Your task to perform on an android device: Search for Mexican restaurants on Maps Image 0: 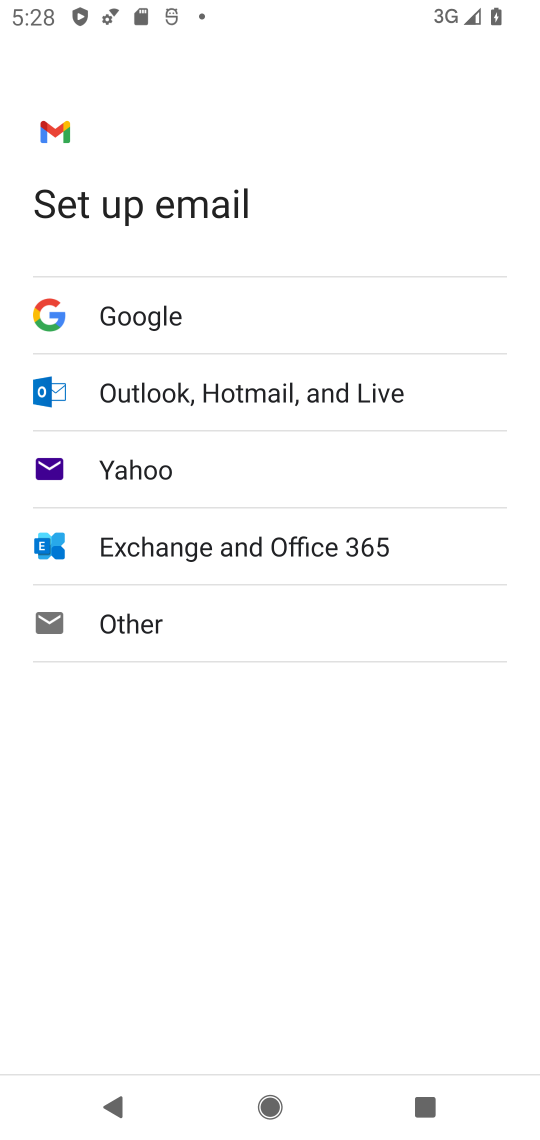
Step 0: press home button
Your task to perform on an android device: Search for Mexican restaurants on Maps Image 1: 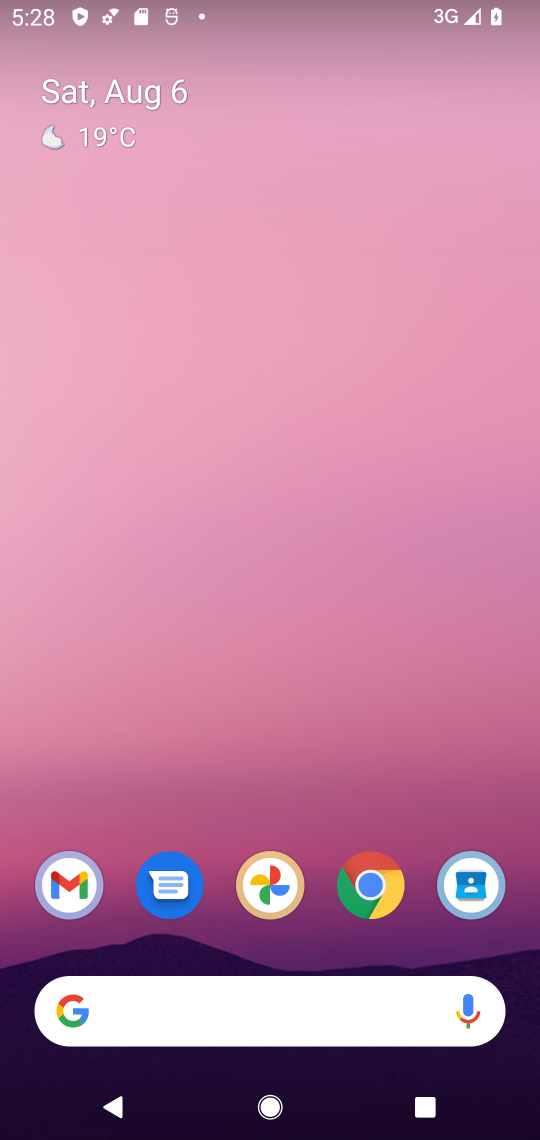
Step 1: drag from (440, 958) to (294, 25)
Your task to perform on an android device: Search for Mexican restaurants on Maps Image 2: 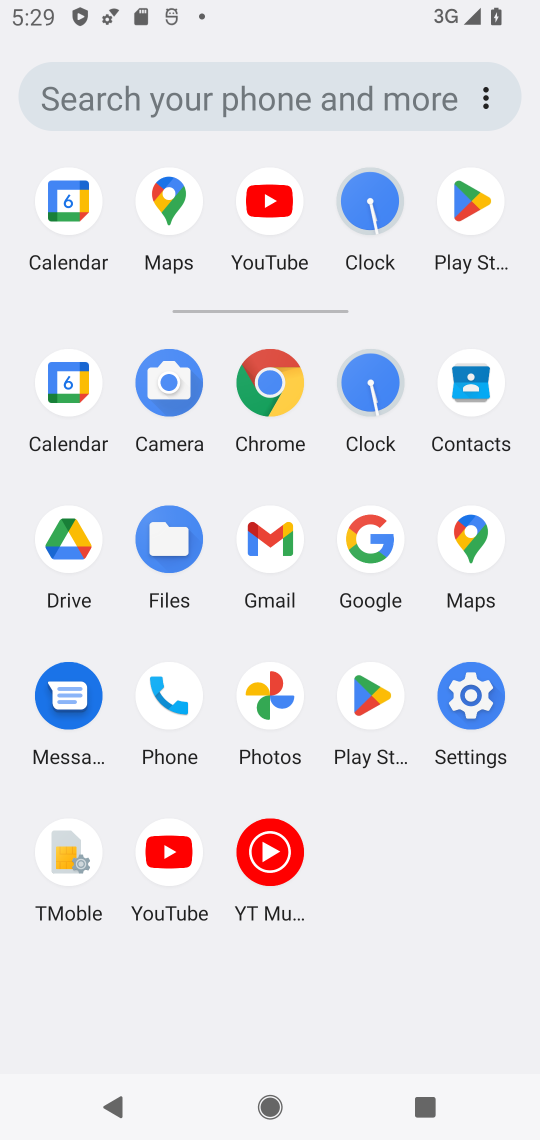
Step 2: click (443, 539)
Your task to perform on an android device: Search for Mexican restaurants on Maps Image 3: 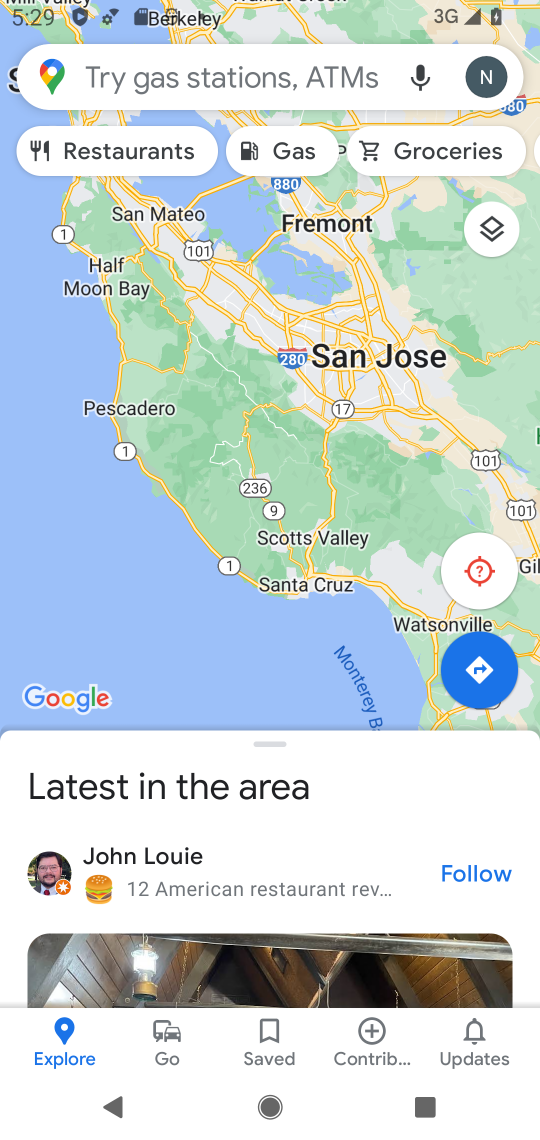
Step 3: click (198, 89)
Your task to perform on an android device: Search for Mexican restaurants on Maps Image 4: 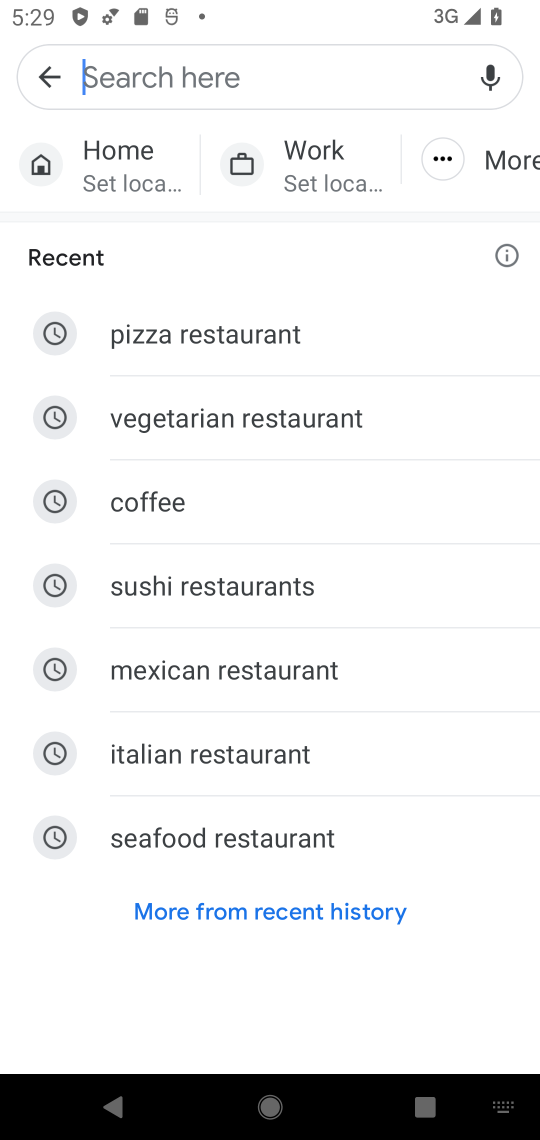
Step 4: click (222, 671)
Your task to perform on an android device: Search for Mexican restaurants on Maps Image 5: 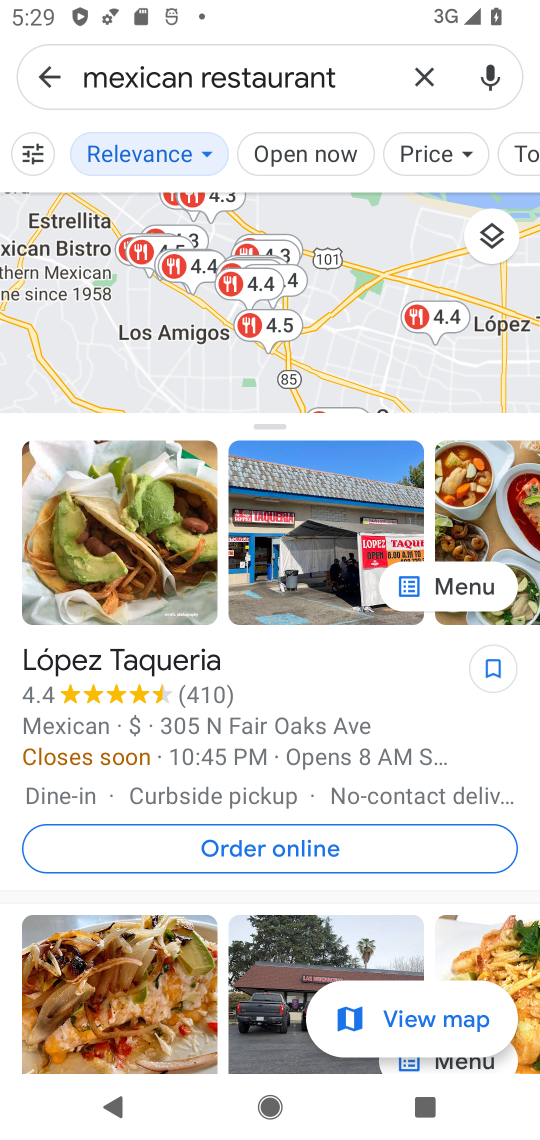
Step 5: task complete